Your task to perform on an android device: Open sound settings Image 0: 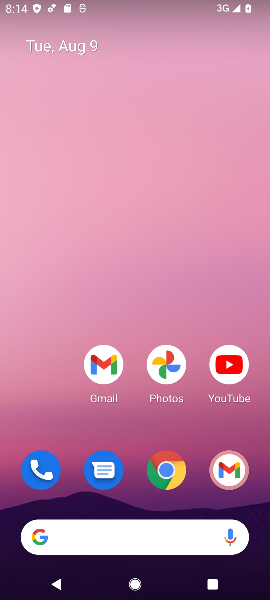
Step 0: drag from (90, 536) to (144, 113)
Your task to perform on an android device: Open sound settings Image 1: 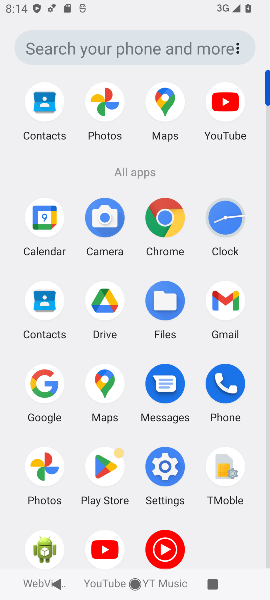
Step 1: click (163, 466)
Your task to perform on an android device: Open sound settings Image 2: 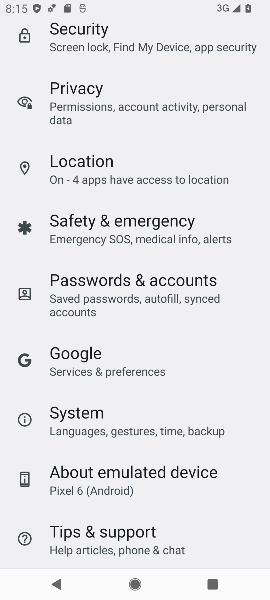
Step 2: drag from (132, 150) to (135, 288)
Your task to perform on an android device: Open sound settings Image 3: 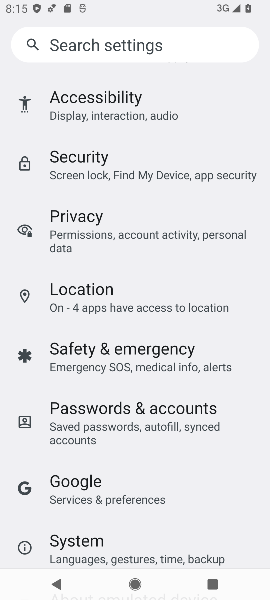
Step 3: drag from (143, 141) to (136, 249)
Your task to perform on an android device: Open sound settings Image 4: 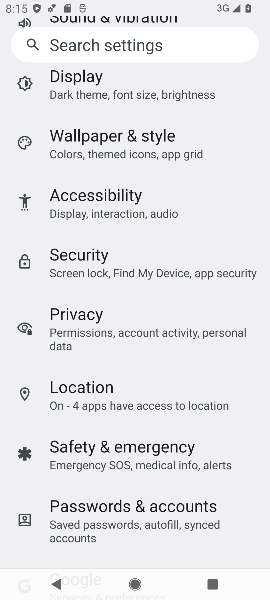
Step 4: drag from (143, 117) to (143, 208)
Your task to perform on an android device: Open sound settings Image 5: 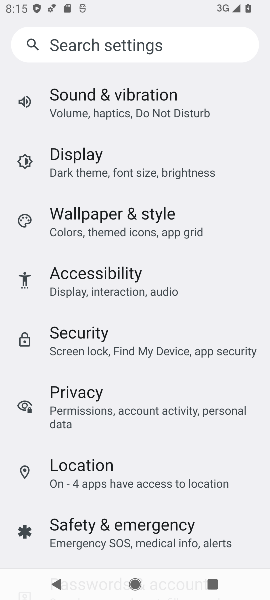
Step 5: click (145, 114)
Your task to perform on an android device: Open sound settings Image 6: 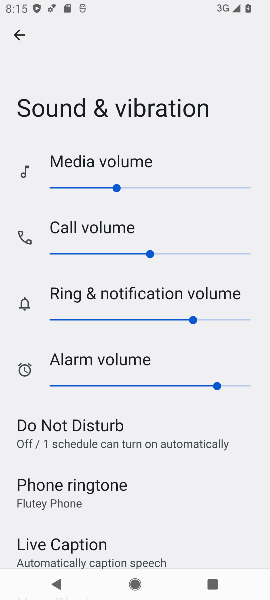
Step 6: task complete